Your task to perform on an android device: open app "File Manager" Image 0: 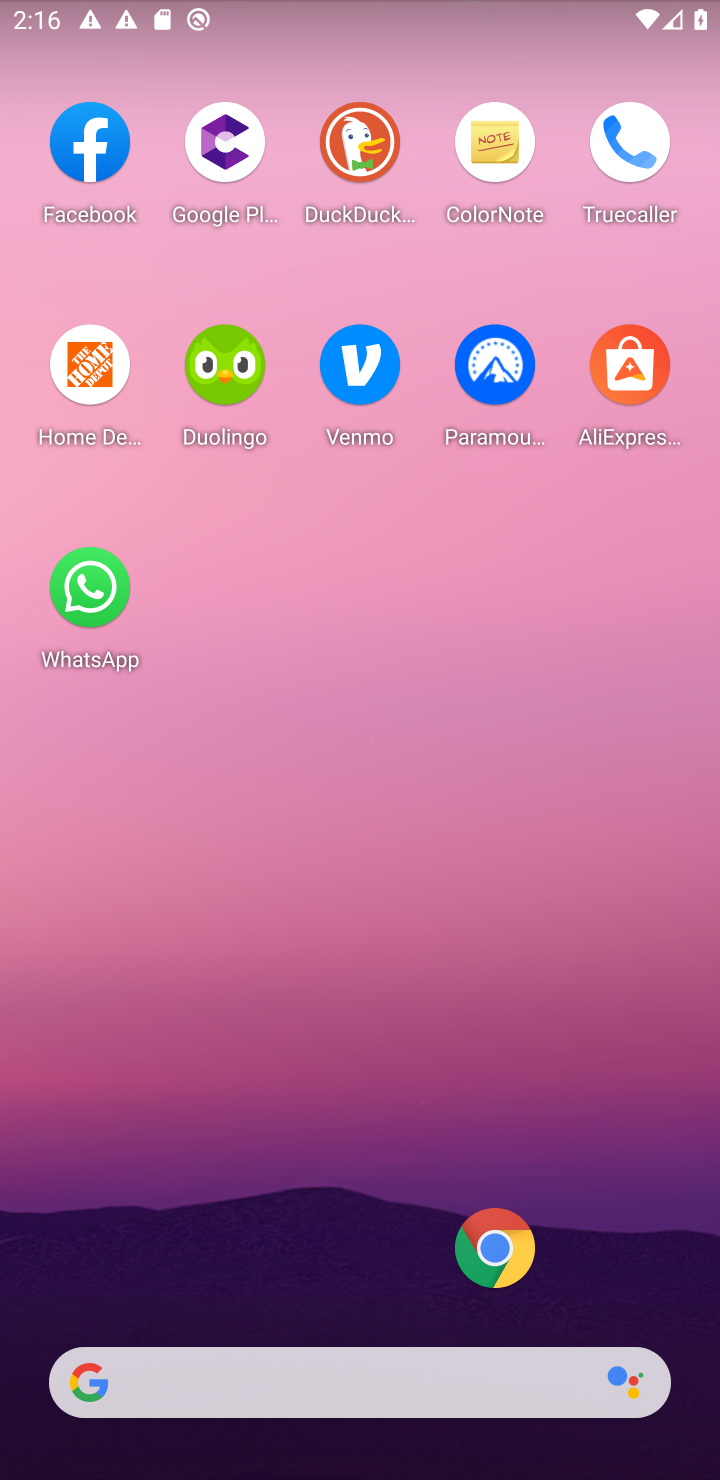
Step 0: drag from (355, 1367) to (471, 591)
Your task to perform on an android device: open app "File Manager" Image 1: 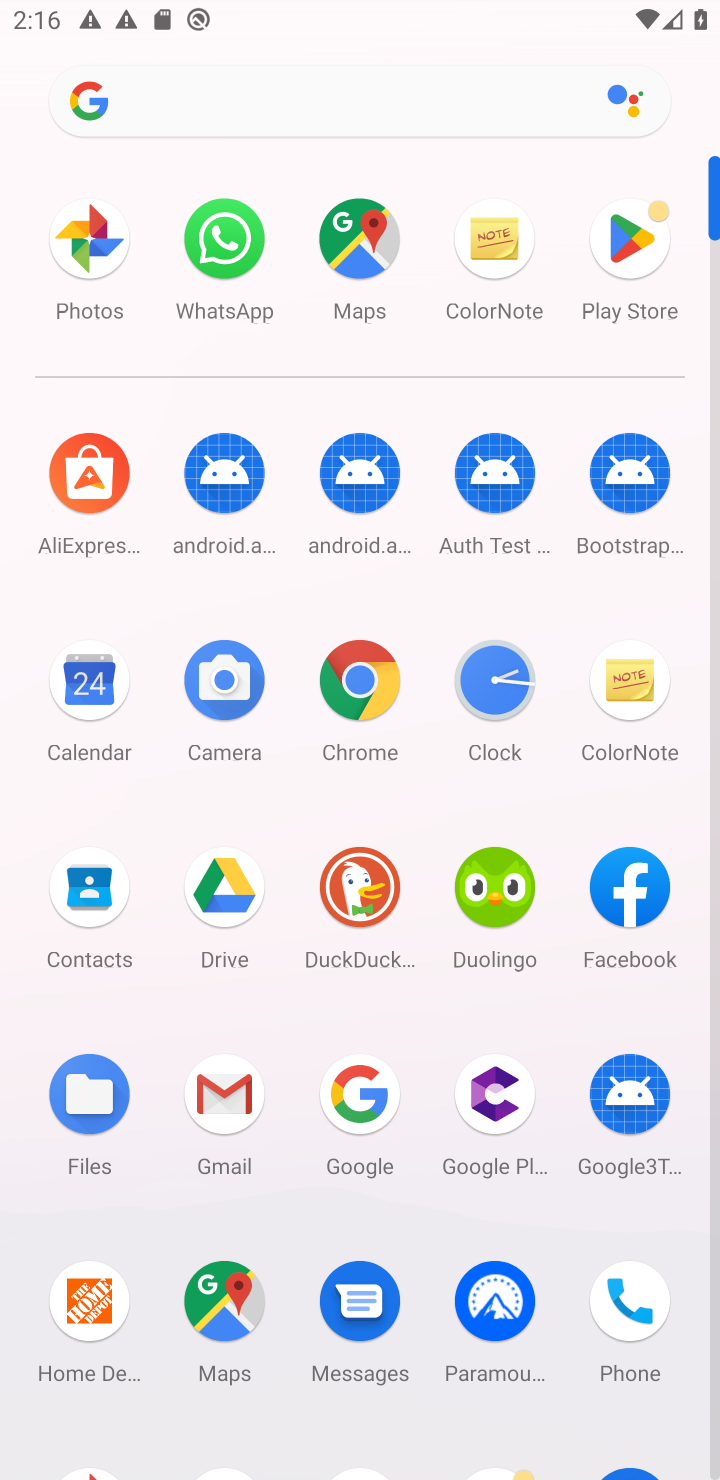
Step 1: click (625, 252)
Your task to perform on an android device: open app "File Manager" Image 2: 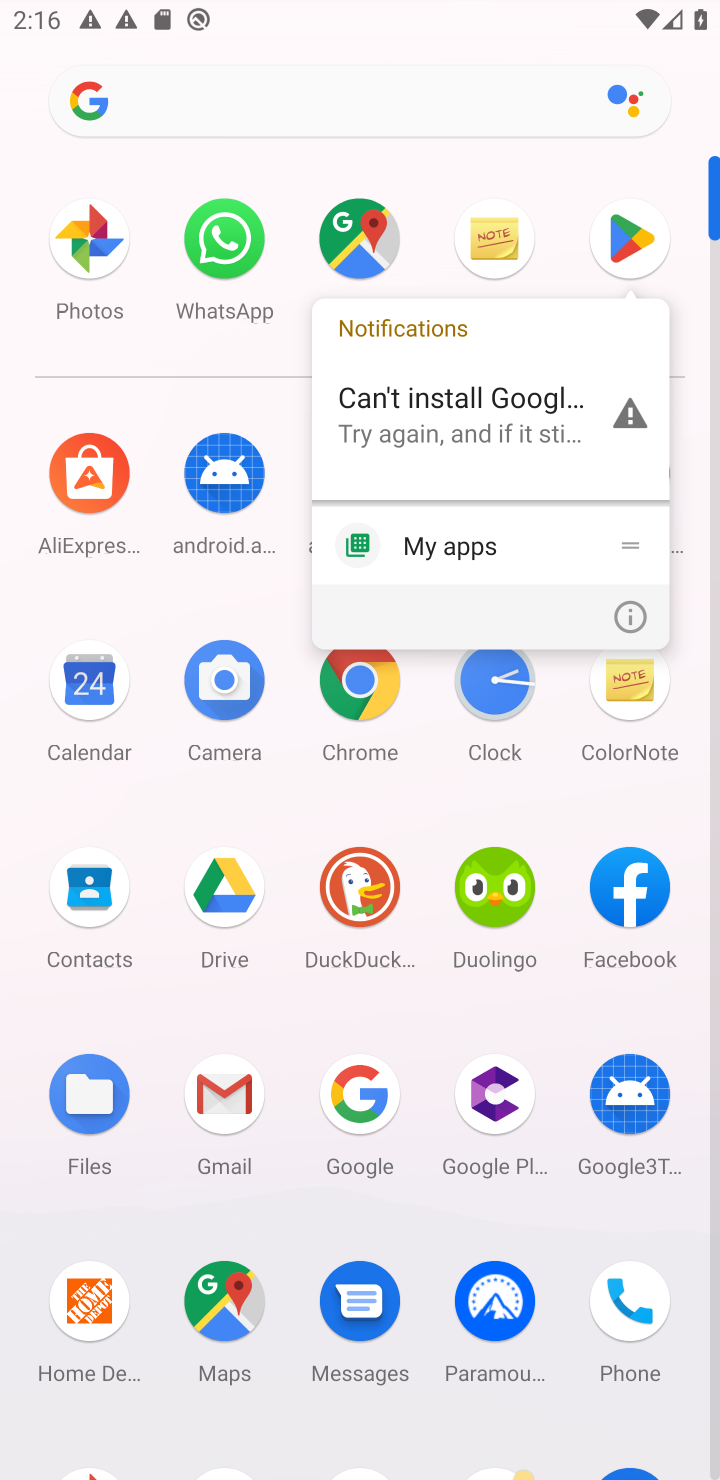
Step 2: click (625, 247)
Your task to perform on an android device: open app "File Manager" Image 3: 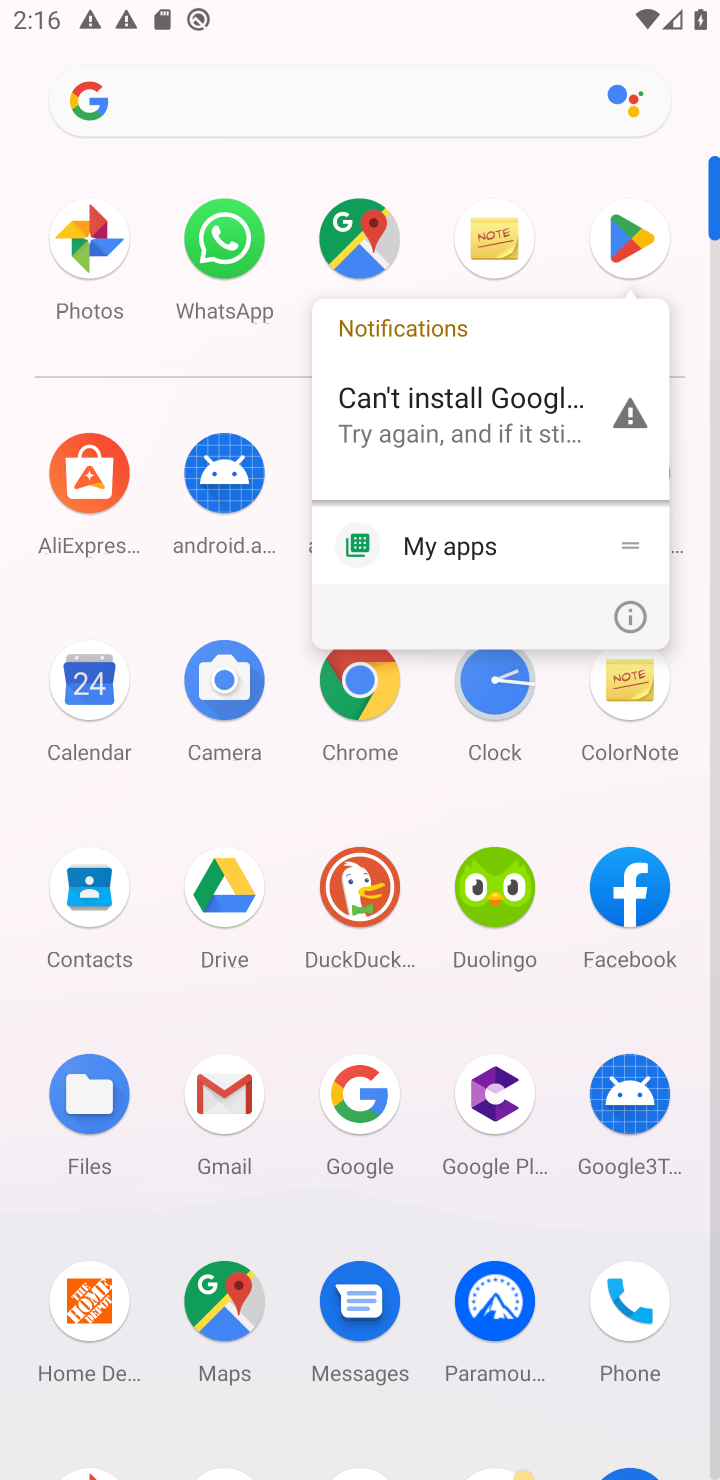
Step 3: click (625, 247)
Your task to perform on an android device: open app "File Manager" Image 4: 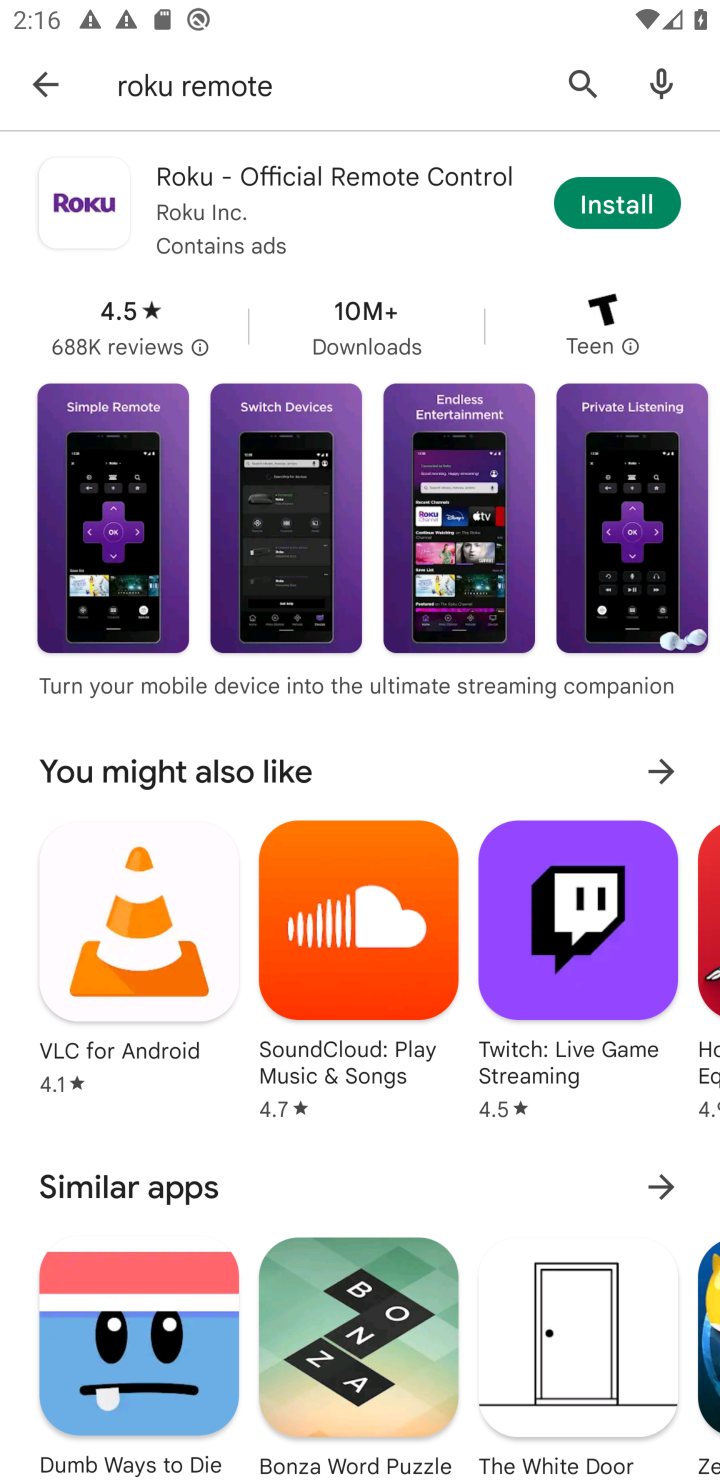
Step 4: click (639, 237)
Your task to perform on an android device: open app "File Manager" Image 5: 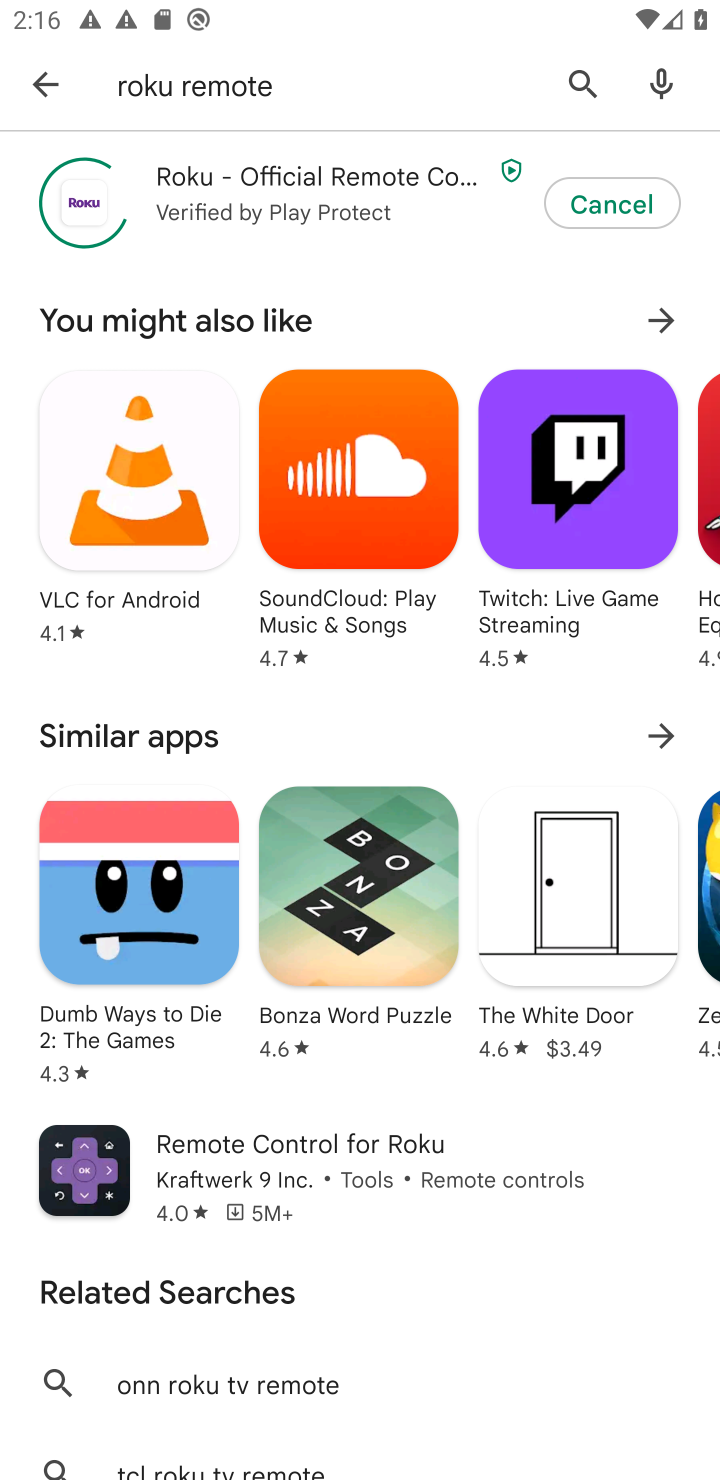
Step 5: click (579, 72)
Your task to perform on an android device: open app "File Manager" Image 6: 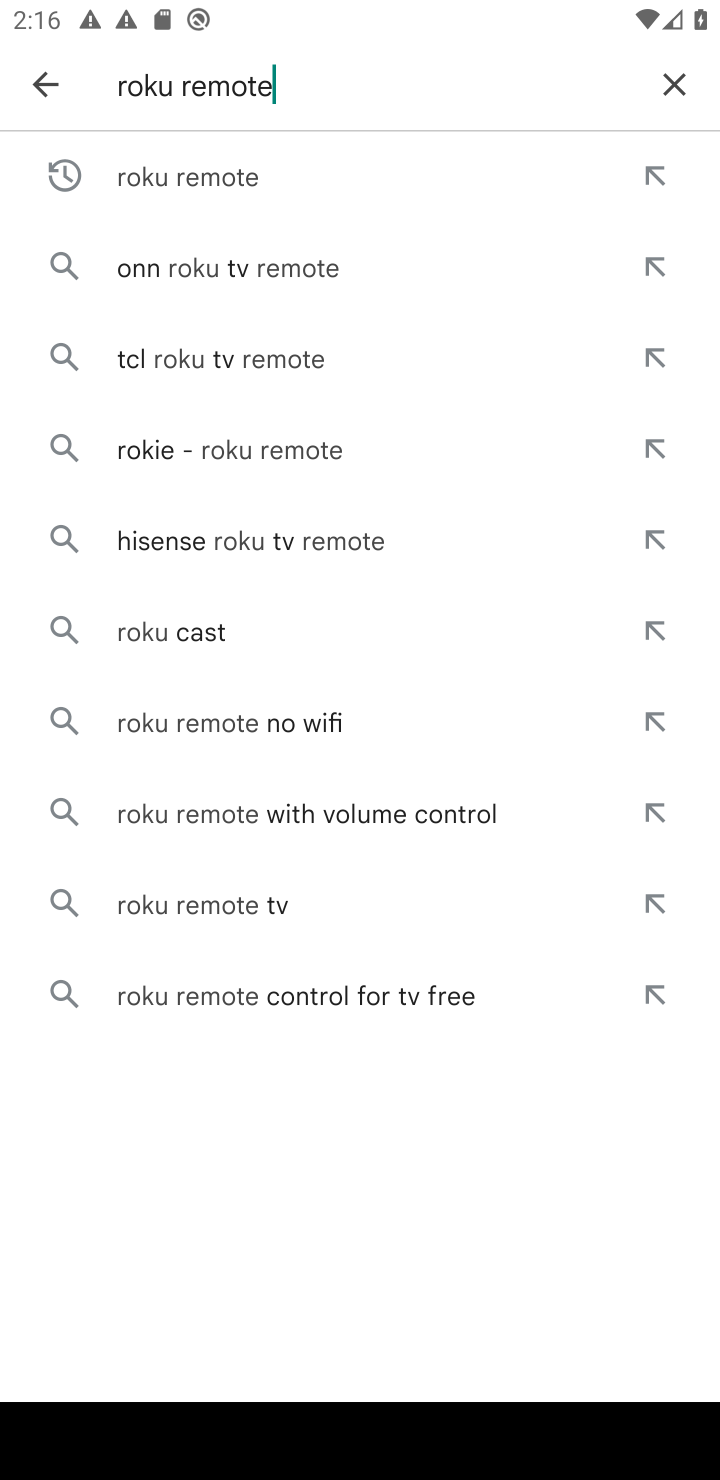
Step 6: click (656, 91)
Your task to perform on an android device: open app "File Manager" Image 7: 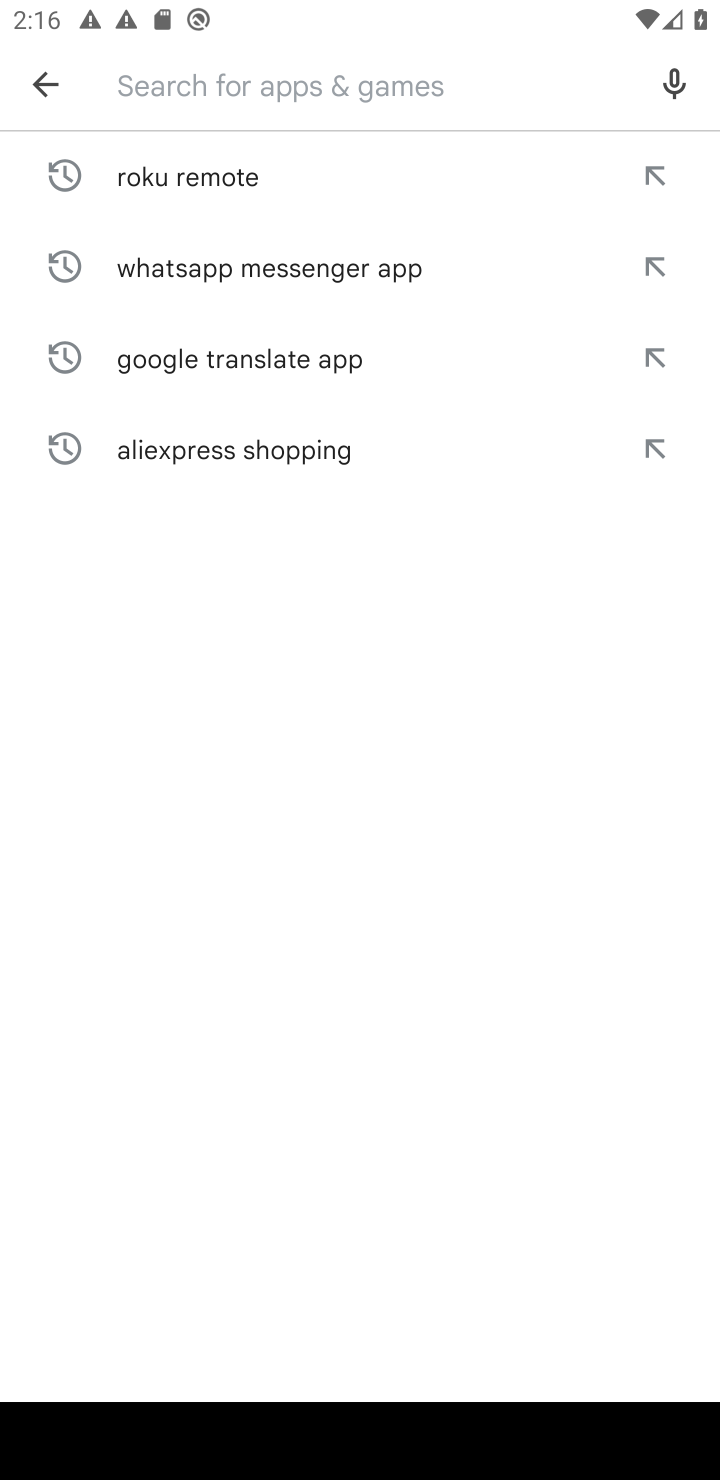
Step 7: click (335, 102)
Your task to perform on an android device: open app "File Manager" Image 8: 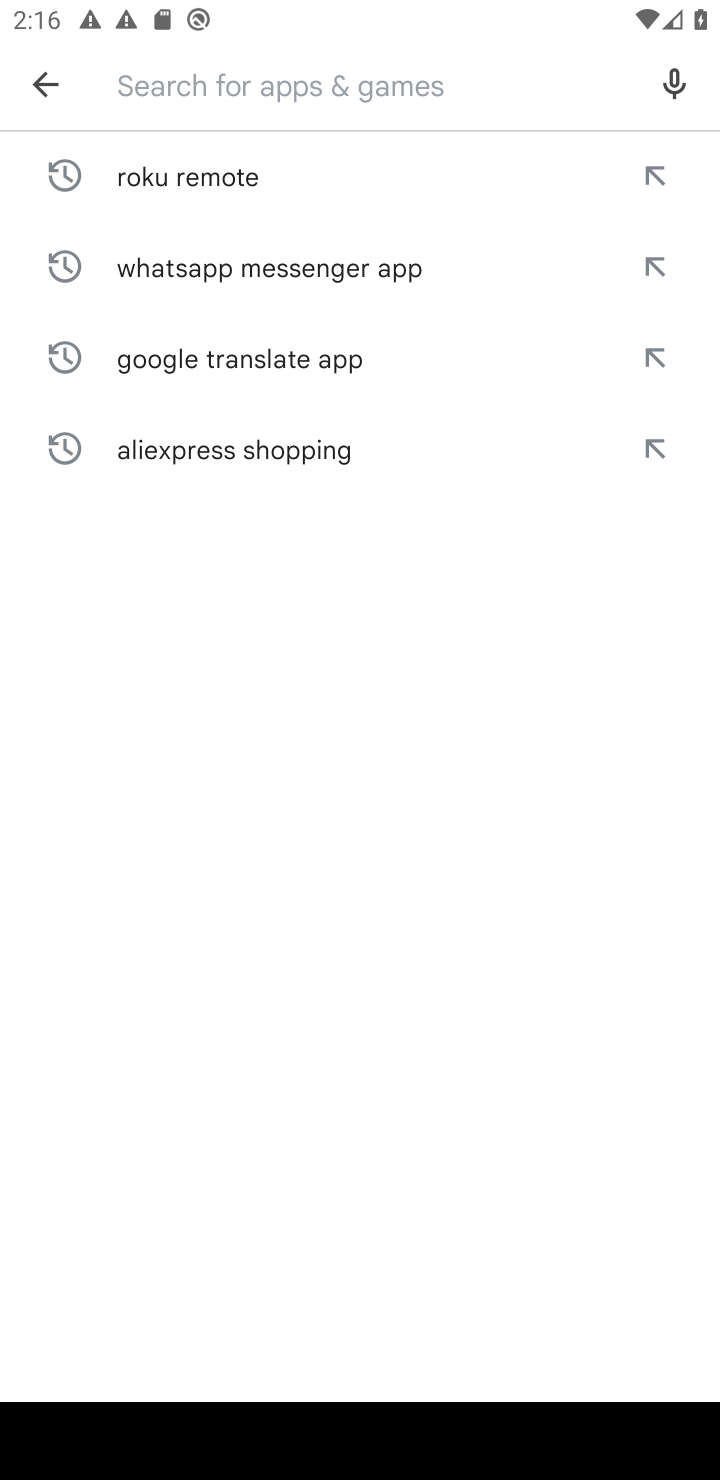
Step 8: type "File Manager "
Your task to perform on an android device: open app "File Manager" Image 9: 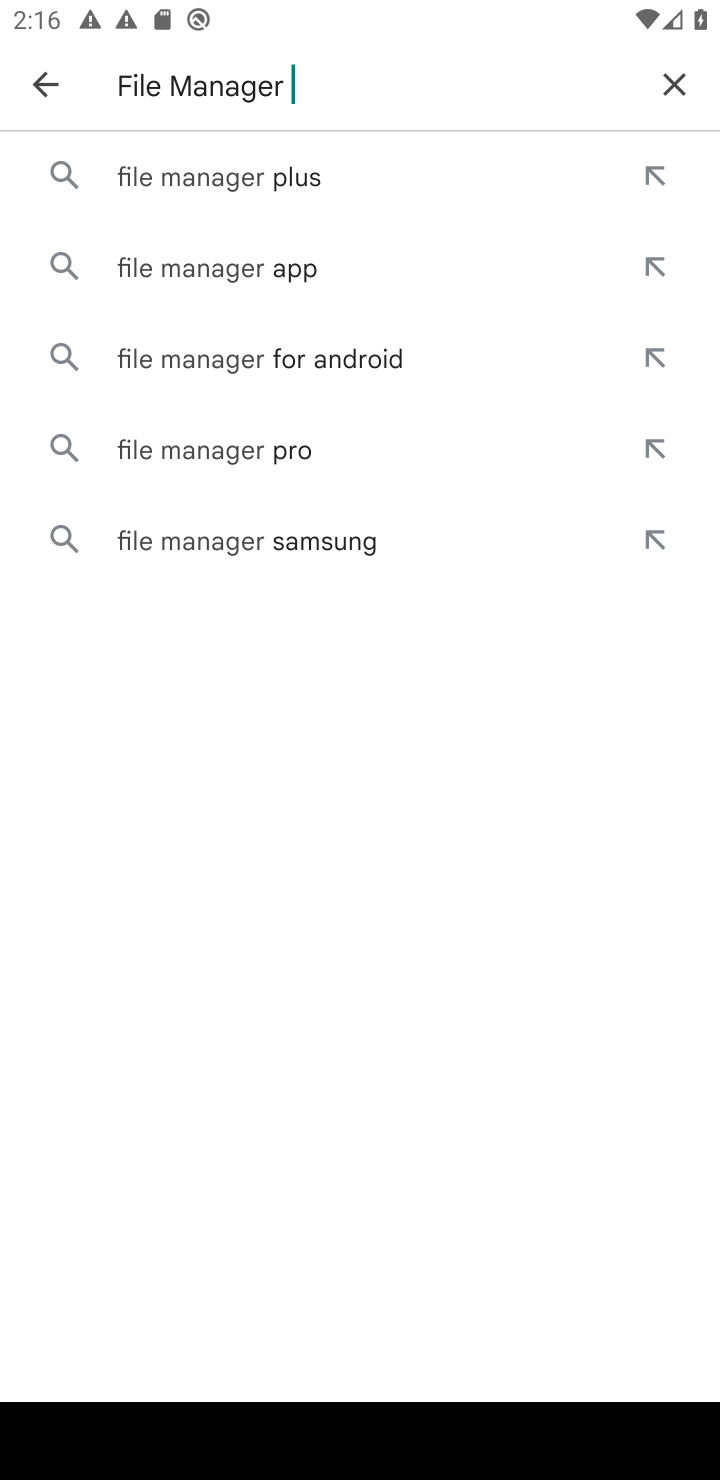
Step 9: click (241, 101)
Your task to perform on an android device: open app "File Manager" Image 10: 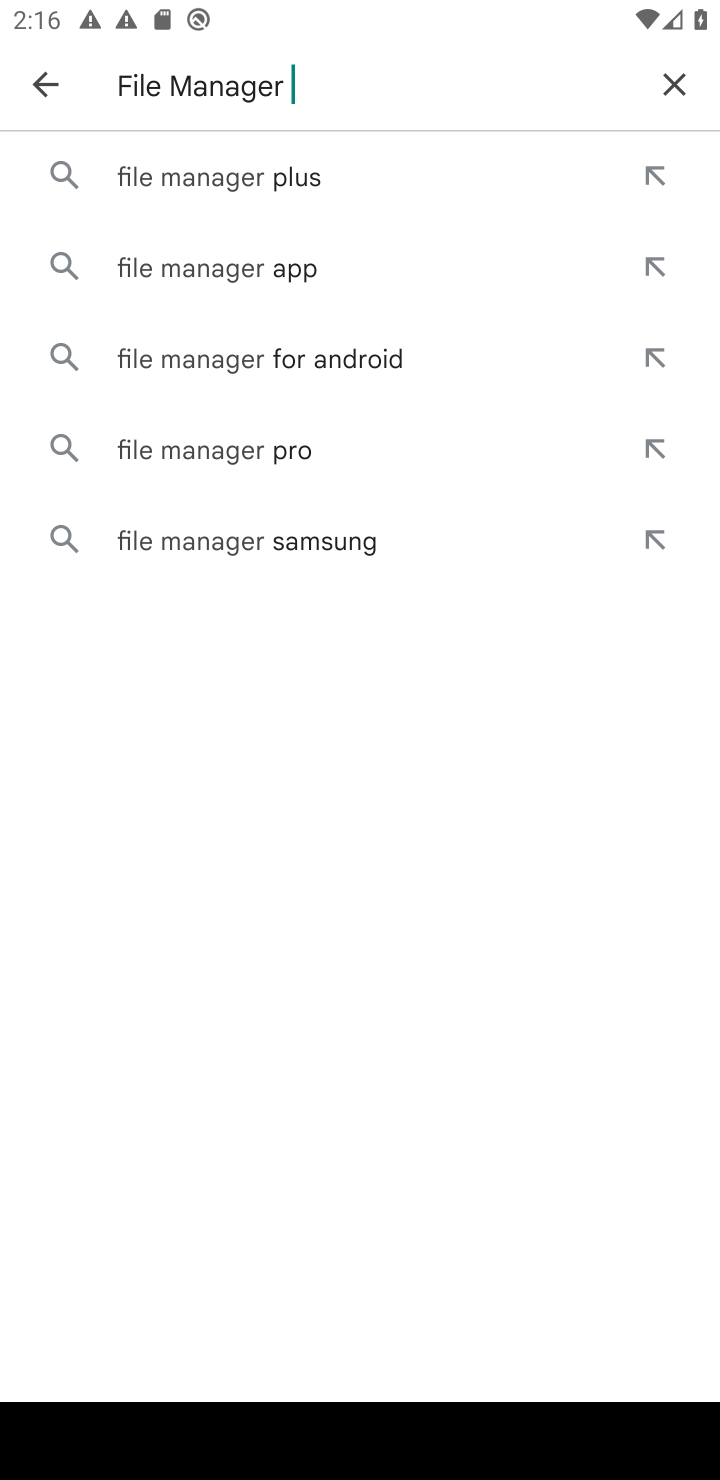
Step 10: click (245, 170)
Your task to perform on an android device: open app "File Manager" Image 11: 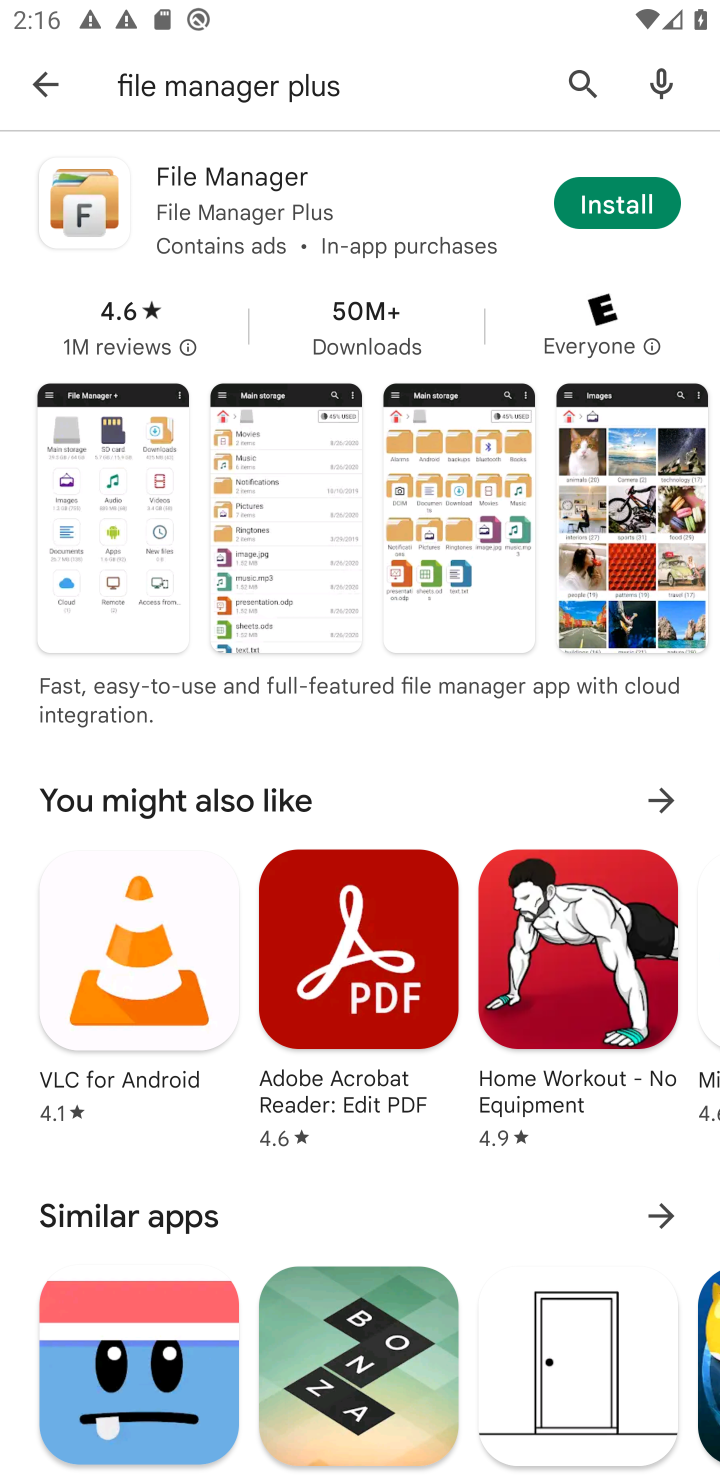
Step 11: click (605, 193)
Your task to perform on an android device: open app "File Manager" Image 12: 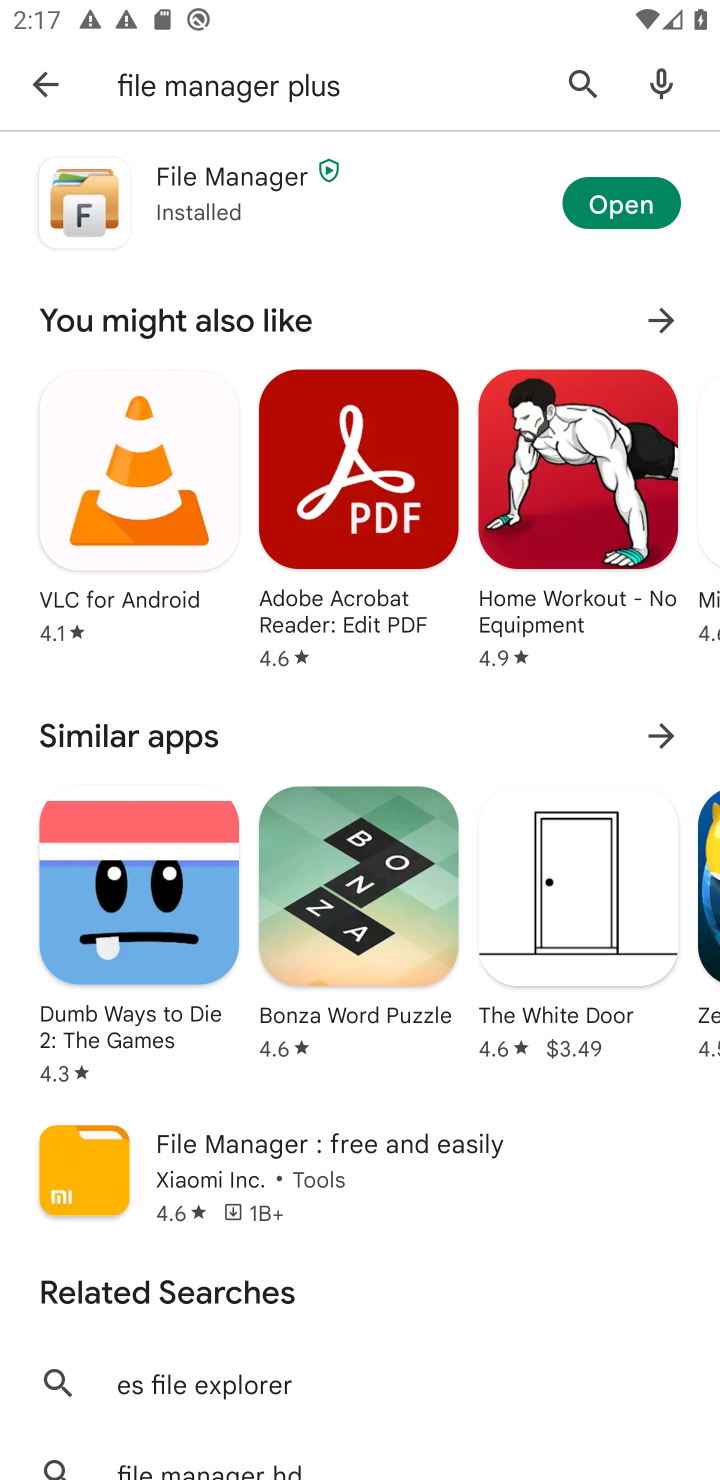
Step 12: task complete